Your task to perform on an android device: Open Youtube and go to the subscriptions tab Image 0: 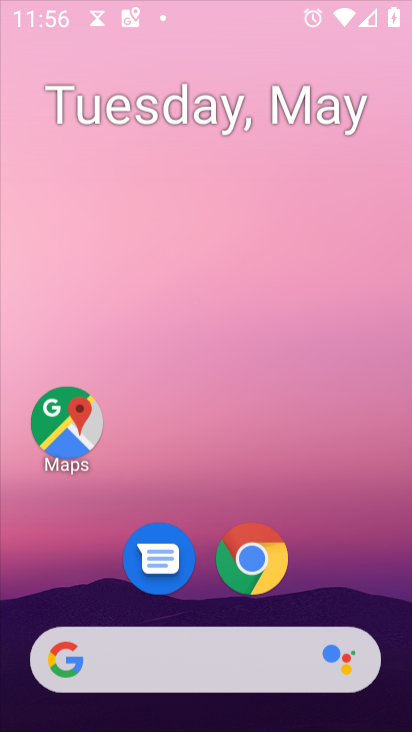
Step 0: click (335, 1)
Your task to perform on an android device: Open Youtube and go to the subscriptions tab Image 1: 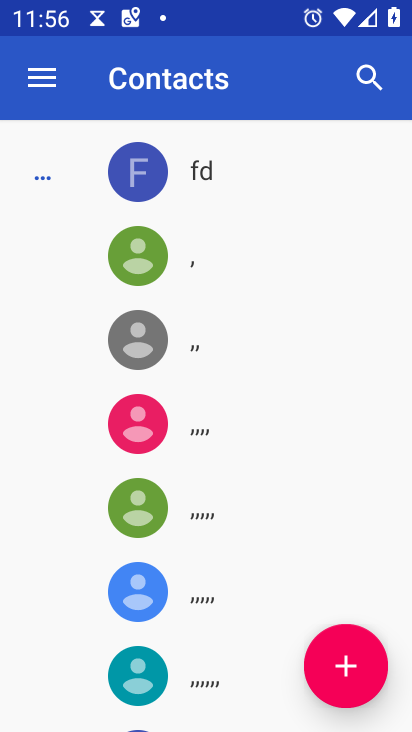
Step 1: press home button
Your task to perform on an android device: Open Youtube and go to the subscriptions tab Image 2: 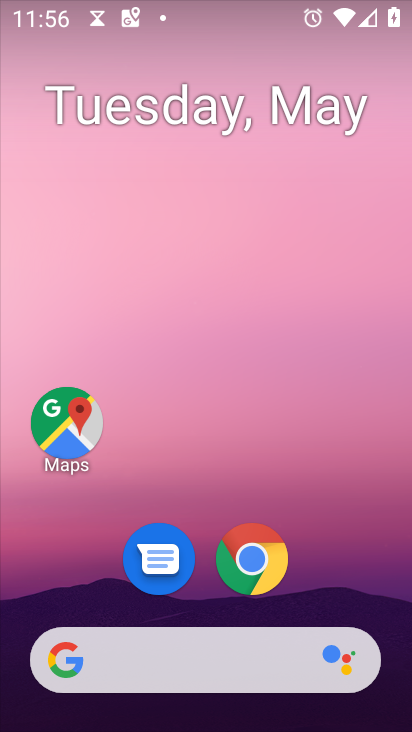
Step 2: drag from (358, 569) to (381, 6)
Your task to perform on an android device: Open Youtube and go to the subscriptions tab Image 3: 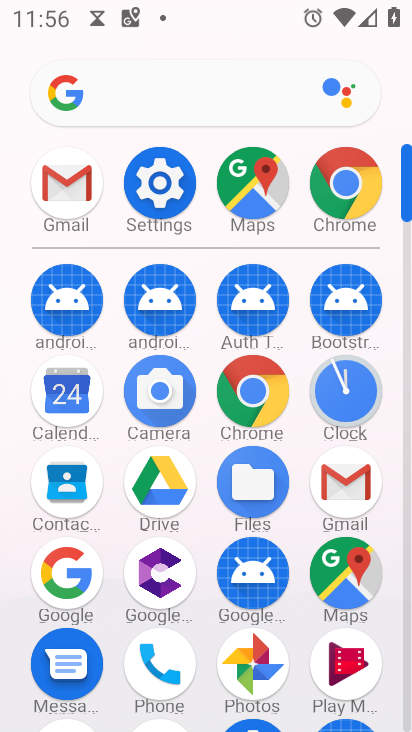
Step 3: drag from (380, 544) to (411, 124)
Your task to perform on an android device: Open Youtube and go to the subscriptions tab Image 4: 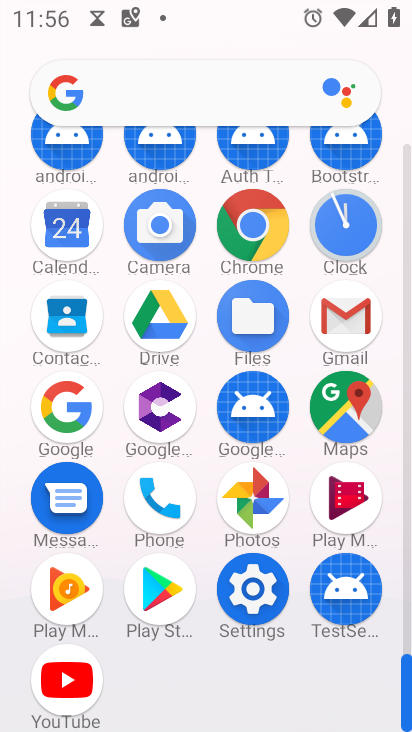
Step 4: click (75, 665)
Your task to perform on an android device: Open Youtube and go to the subscriptions tab Image 5: 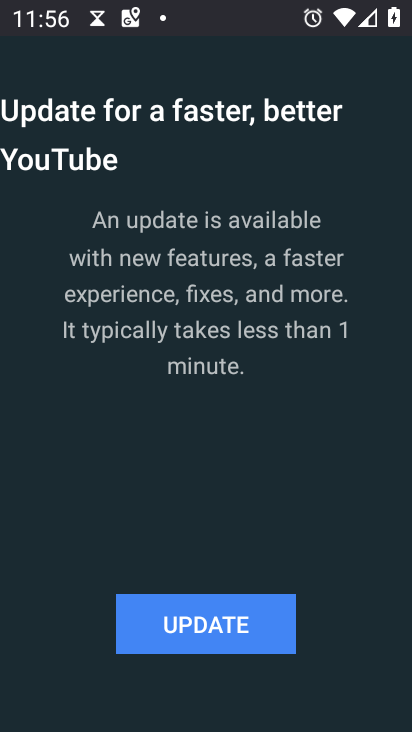
Step 5: click (223, 637)
Your task to perform on an android device: Open Youtube and go to the subscriptions tab Image 6: 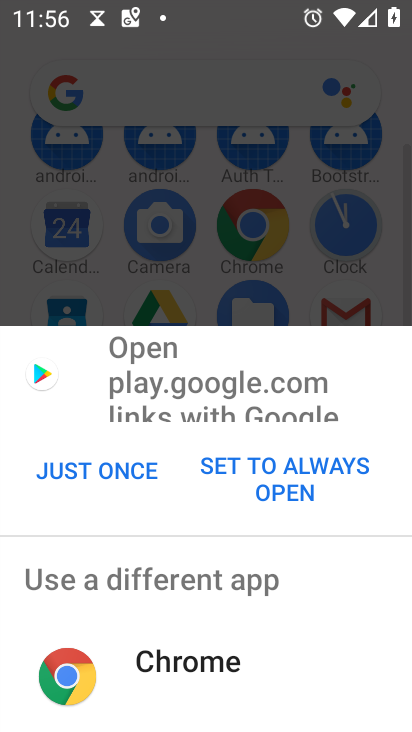
Step 6: click (91, 475)
Your task to perform on an android device: Open Youtube and go to the subscriptions tab Image 7: 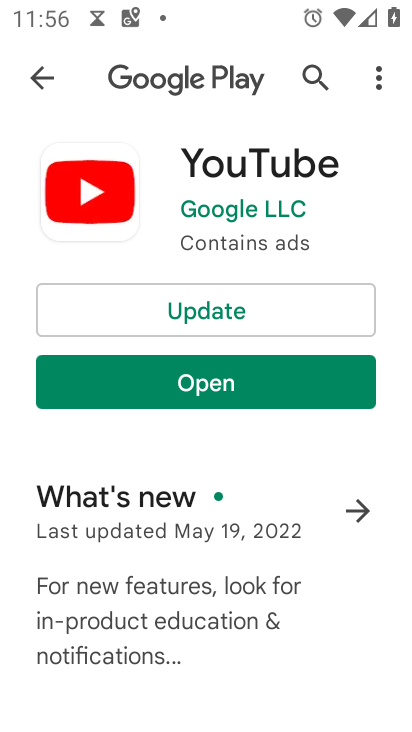
Step 7: click (256, 303)
Your task to perform on an android device: Open Youtube and go to the subscriptions tab Image 8: 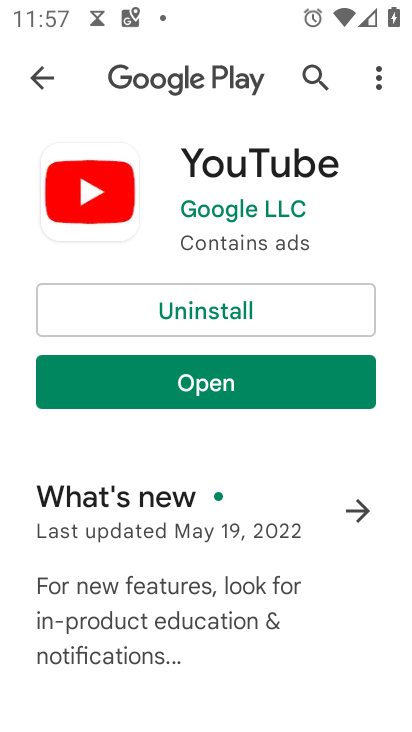
Step 8: click (165, 398)
Your task to perform on an android device: Open Youtube and go to the subscriptions tab Image 9: 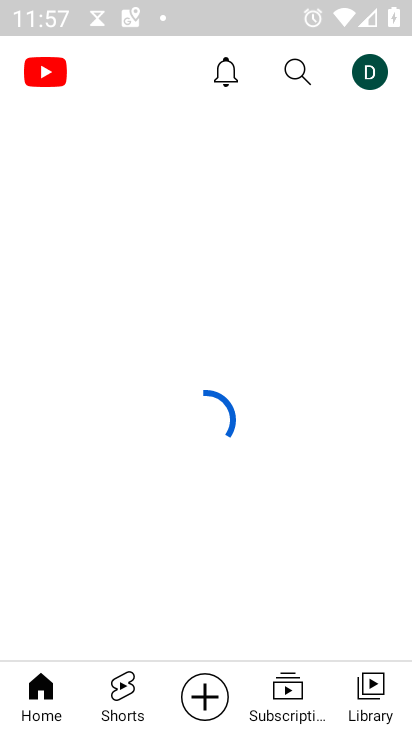
Step 9: click (254, 697)
Your task to perform on an android device: Open Youtube and go to the subscriptions tab Image 10: 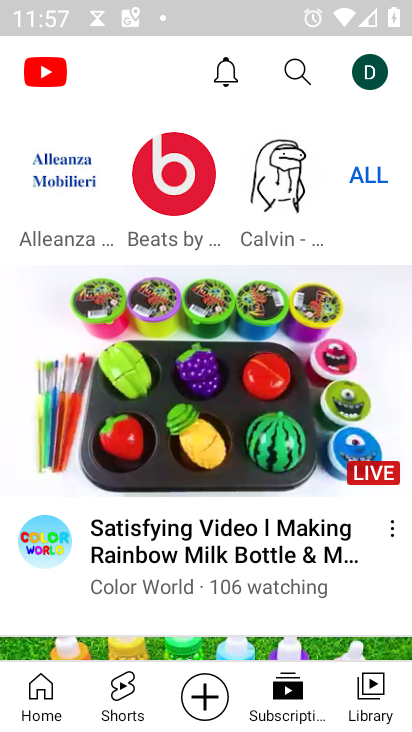
Step 10: task complete